Your task to perform on an android device: open chrome and create a bookmark for the current page Image 0: 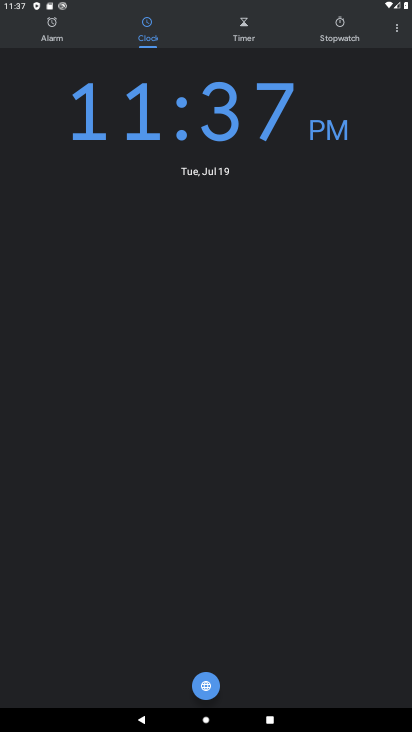
Step 0: press home button
Your task to perform on an android device: open chrome and create a bookmark for the current page Image 1: 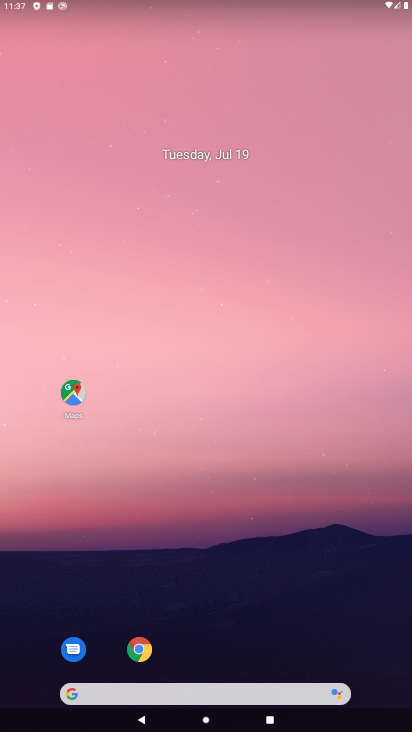
Step 1: drag from (266, 580) to (233, 159)
Your task to perform on an android device: open chrome and create a bookmark for the current page Image 2: 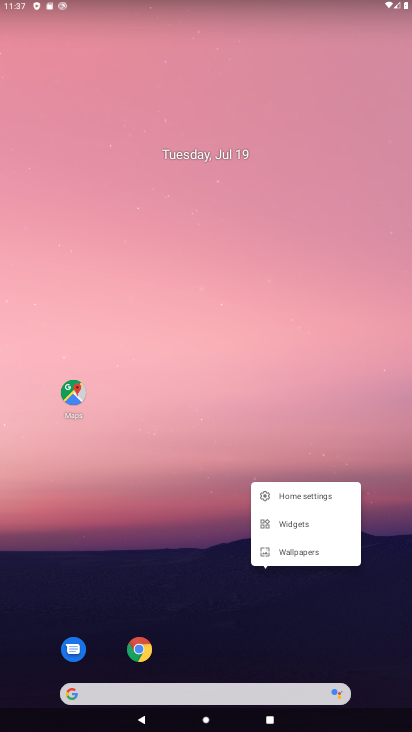
Step 2: drag from (396, 661) to (370, 112)
Your task to perform on an android device: open chrome and create a bookmark for the current page Image 3: 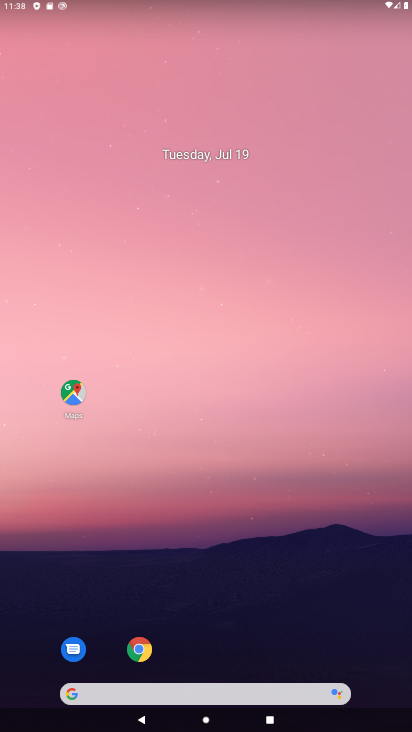
Step 3: click (146, 656)
Your task to perform on an android device: open chrome and create a bookmark for the current page Image 4: 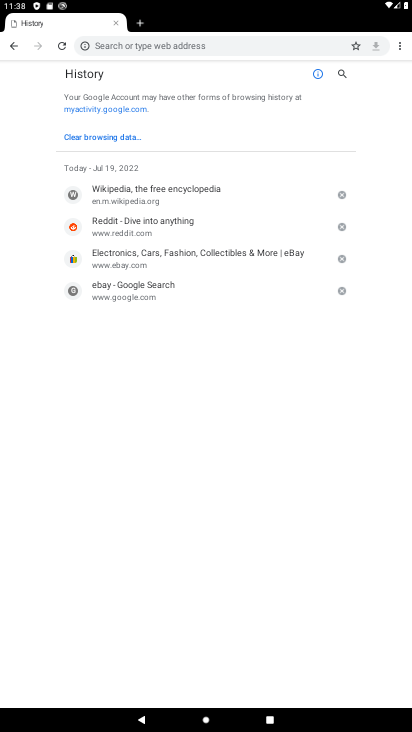
Step 4: click (356, 45)
Your task to perform on an android device: open chrome and create a bookmark for the current page Image 5: 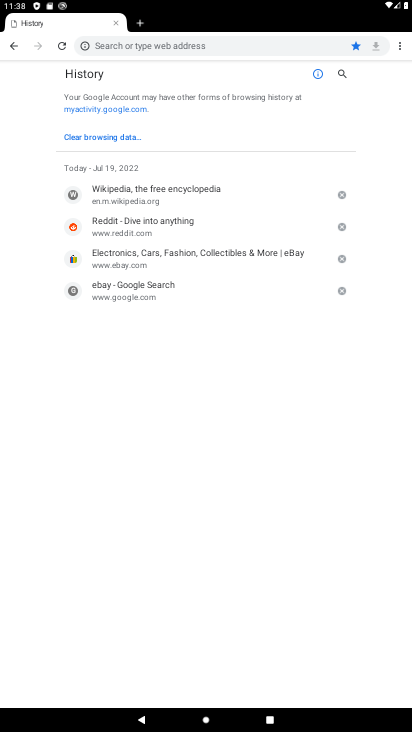
Step 5: task complete